Your task to perform on an android device: clear all cookies in the chrome app Image 0: 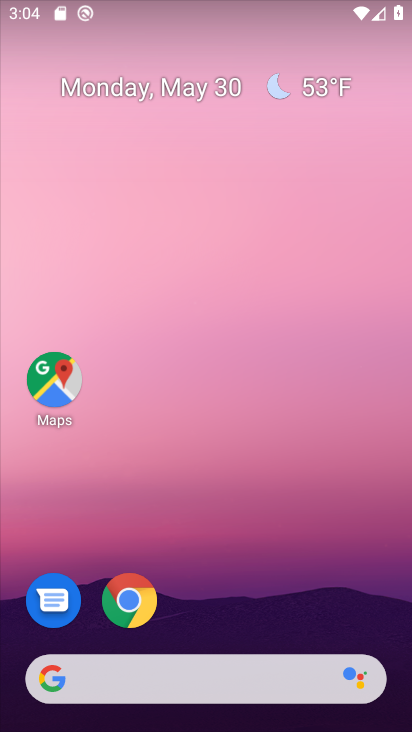
Step 0: drag from (358, 558) to (350, 54)
Your task to perform on an android device: clear all cookies in the chrome app Image 1: 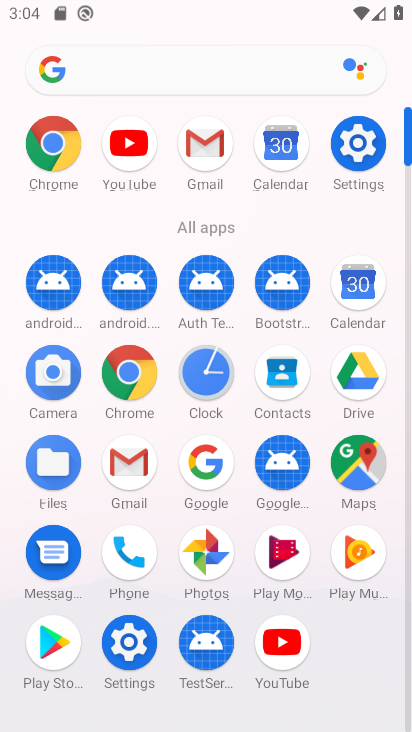
Step 1: click (37, 147)
Your task to perform on an android device: clear all cookies in the chrome app Image 2: 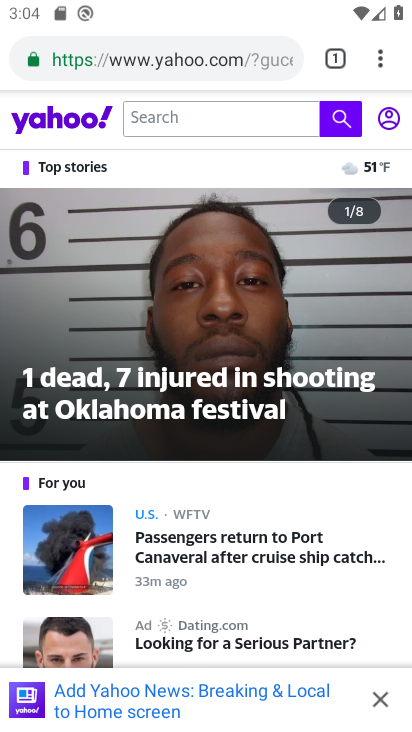
Step 2: drag from (381, 57) to (177, 337)
Your task to perform on an android device: clear all cookies in the chrome app Image 3: 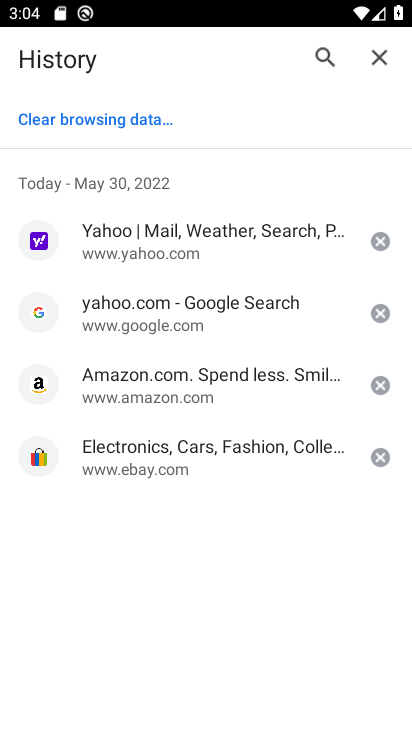
Step 3: click (138, 138)
Your task to perform on an android device: clear all cookies in the chrome app Image 4: 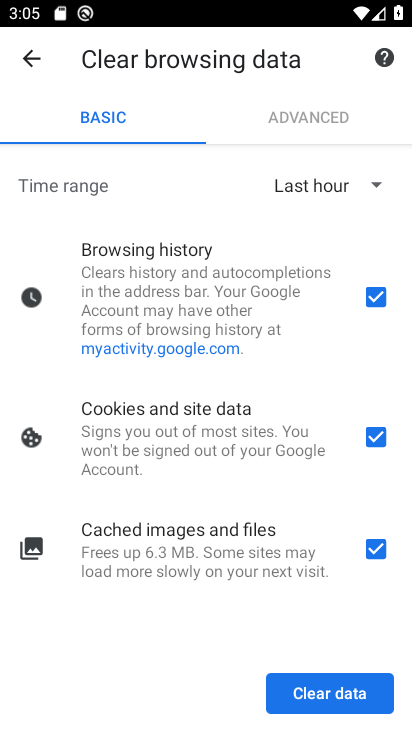
Step 4: click (331, 698)
Your task to perform on an android device: clear all cookies in the chrome app Image 5: 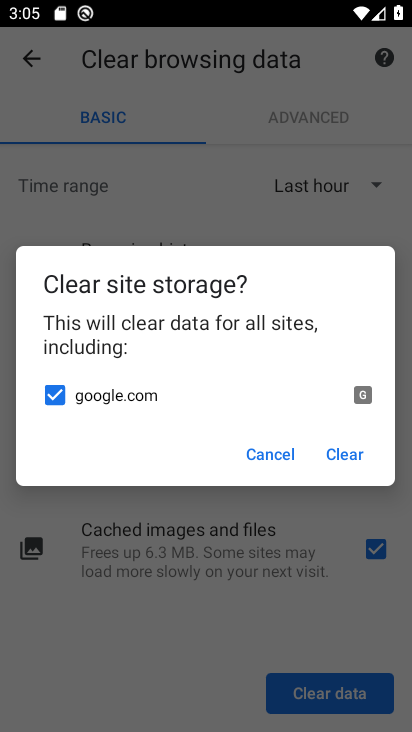
Step 5: click (285, 462)
Your task to perform on an android device: clear all cookies in the chrome app Image 6: 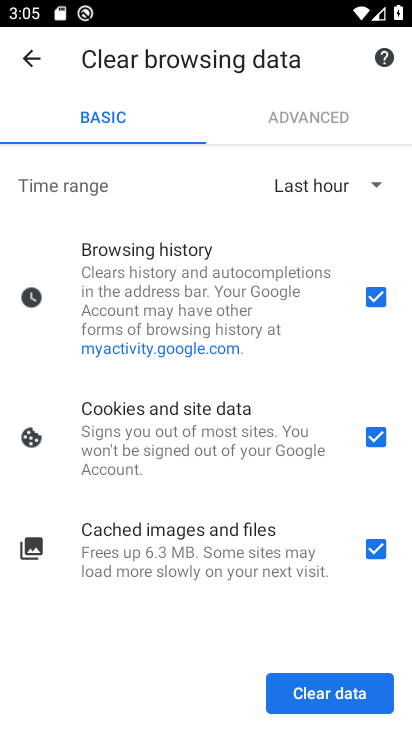
Step 6: click (375, 551)
Your task to perform on an android device: clear all cookies in the chrome app Image 7: 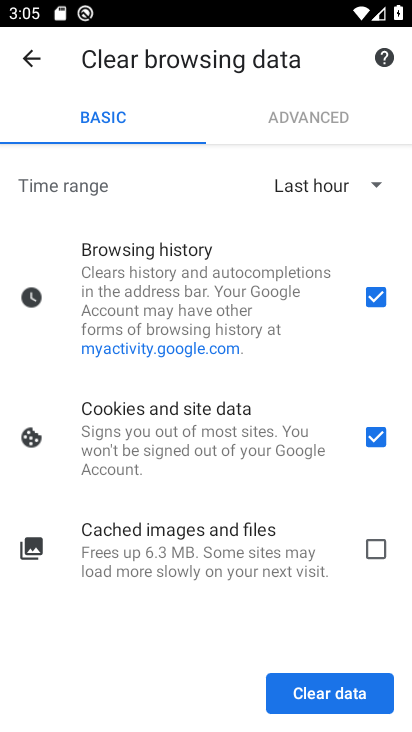
Step 7: click (383, 292)
Your task to perform on an android device: clear all cookies in the chrome app Image 8: 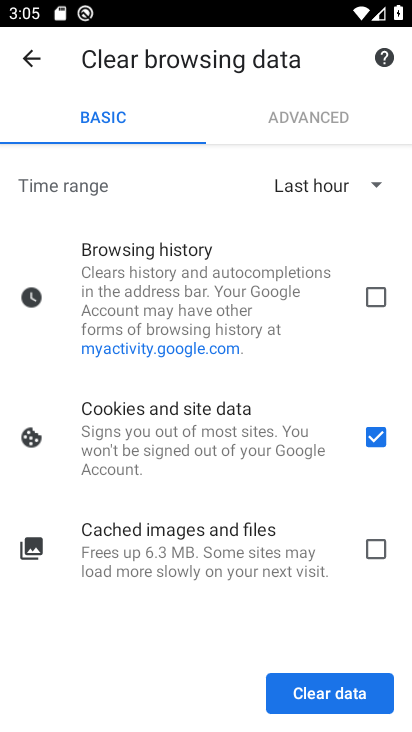
Step 8: click (336, 694)
Your task to perform on an android device: clear all cookies in the chrome app Image 9: 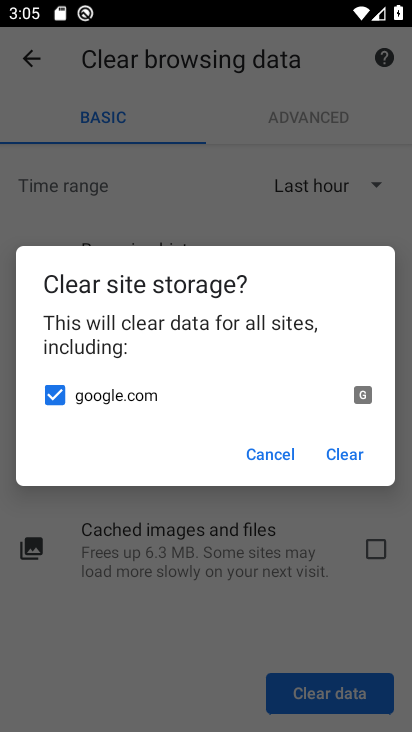
Step 9: click (359, 456)
Your task to perform on an android device: clear all cookies in the chrome app Image 10: 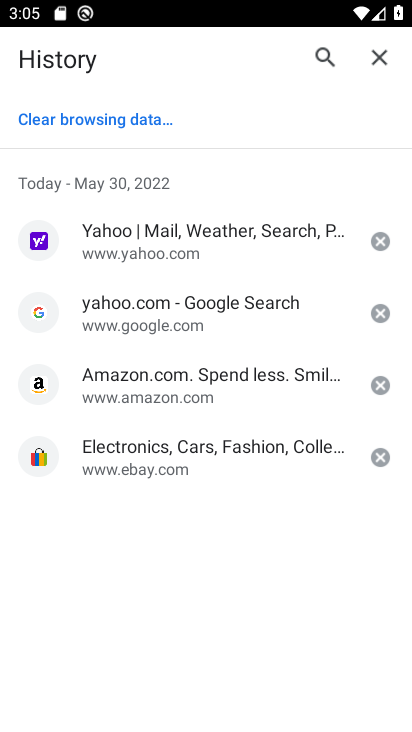
Step 10: task complete